Your task to perform on an android device: What's the weather going to be tomorrow? Image 0: 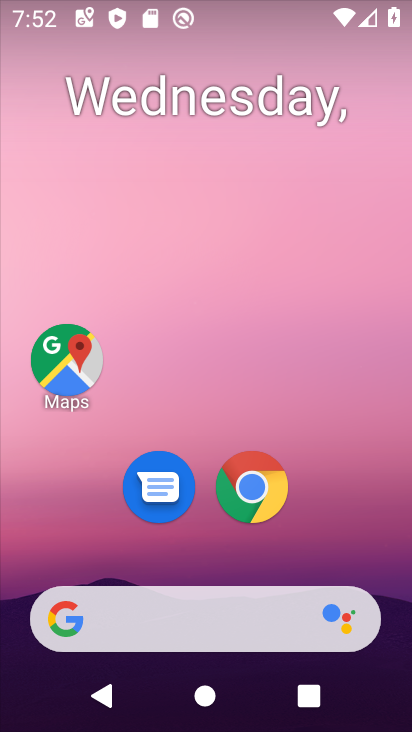
Step 0: click (223, 615)
Your task to perform on an android device: What's the weather going to be tomorrow? Image 1: 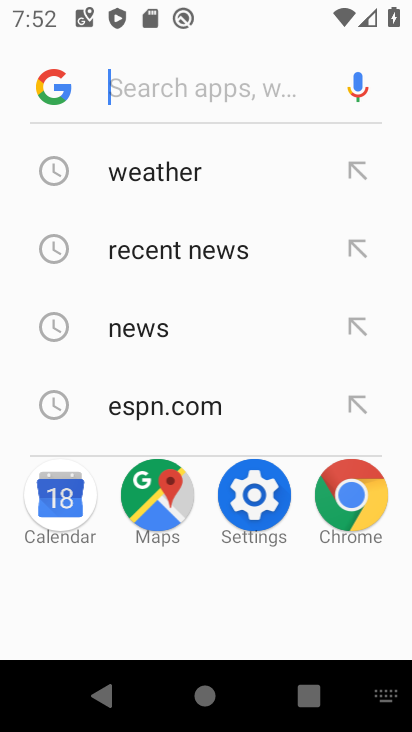
Step 1: click (187, 159)
Your task to perform on an android device: What's the weather going to be tomorrow? Image 2: 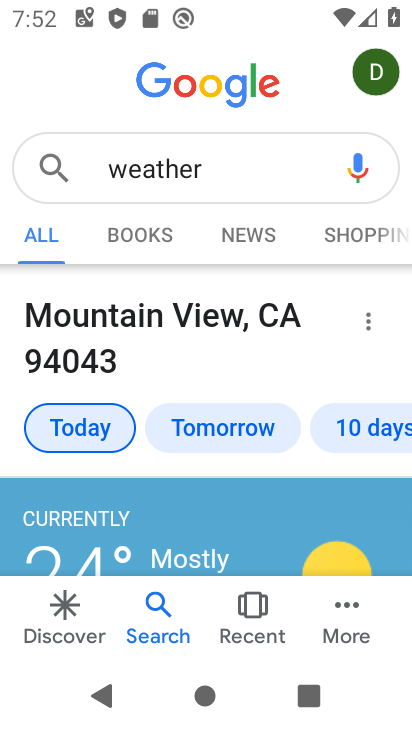
Step 2: task complete